Your task to perform on an android device: Open Chrome and go to settings Image 0: 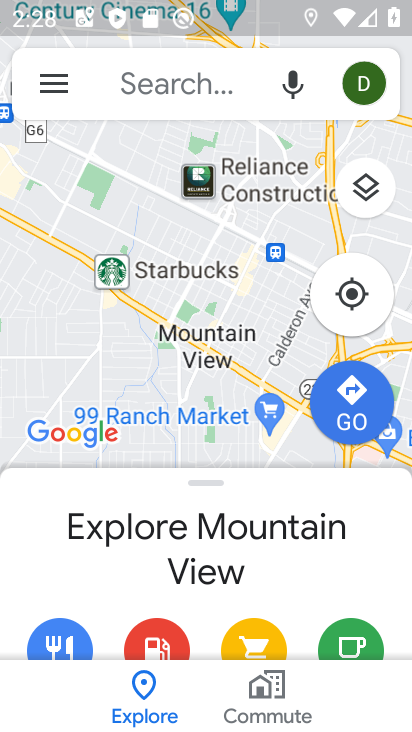
Step 0: press home button
Your task to perform on an android device: Open Chrome and go to settings Image 1: 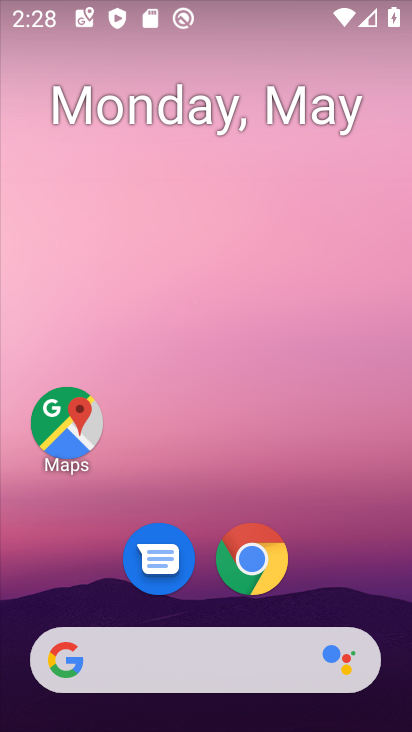
Step 1: click (248, 558)
Your task to perform on an android device: Open Chrome and go to settings Image 2: 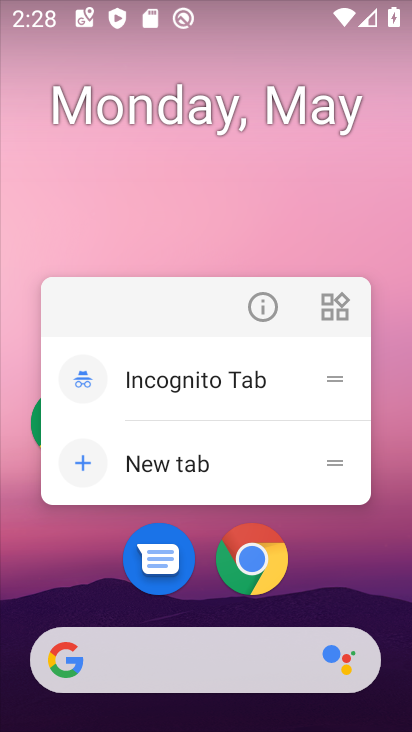
Step 2: click (251, 557)
Your task to perform on an android device: Open Chrome and go to settings Image 3: 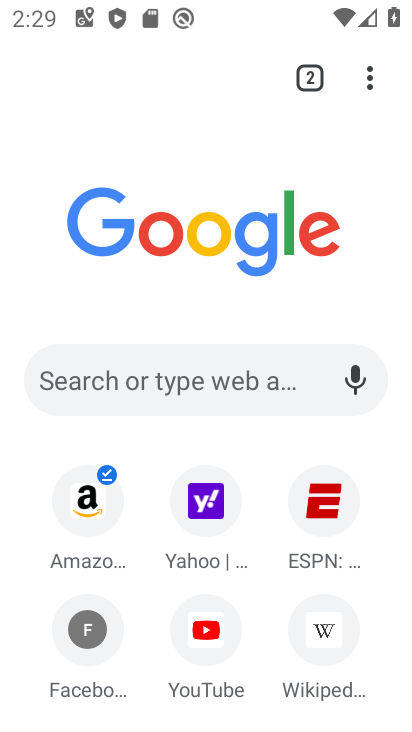
Step 3: click (373, 73)
Your task to perform on an android device: Open Chrome and go to settings Image 4: 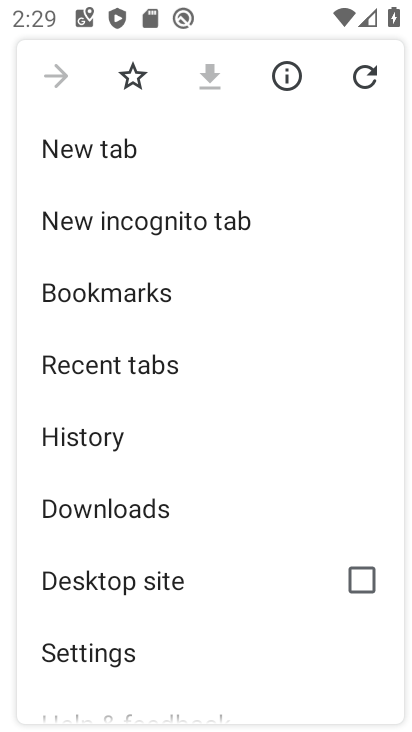
Step 4: click (136, 665)
Your task to perform on an android device: Open Chrome and go to settings Image 5: 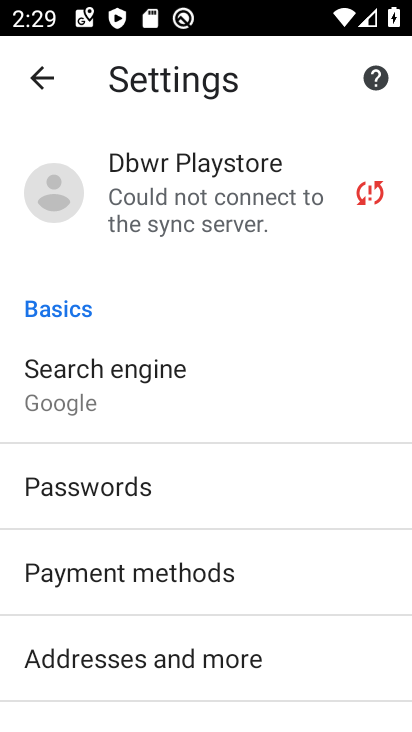
Step 5: task complete